Your task to perform on an android device: Open maps Image 0: 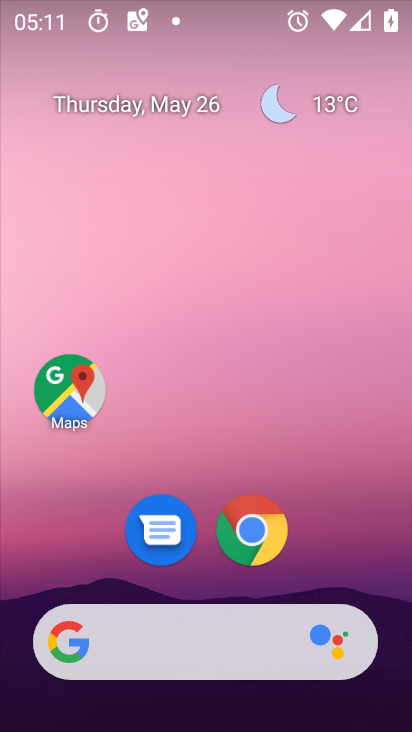
Step 0: drag from (195, 625) to (260, 38)
Your task to perform on an android device: Open maps Image 1: 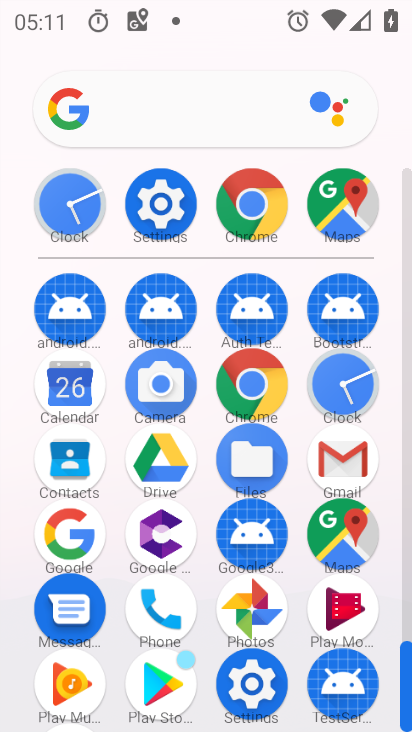
Step 1: click (342, 536)
Your task to perform on an android device: Open maps Image 2: 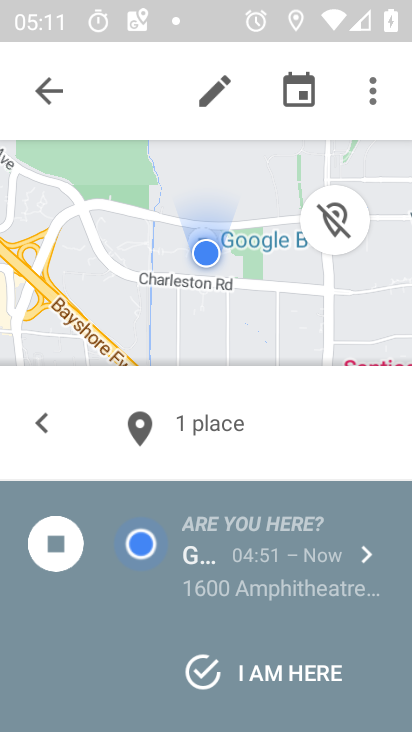
Step 2: task complete